Your task to perform on an android device: check out phone information Image 0: 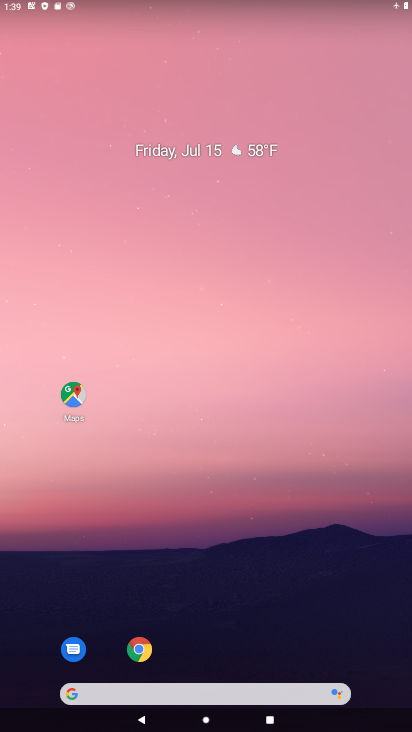
Step 0: drag from (79, 713) to (100, 214)
Your task to perform on an android device: check out phone information Image 1: 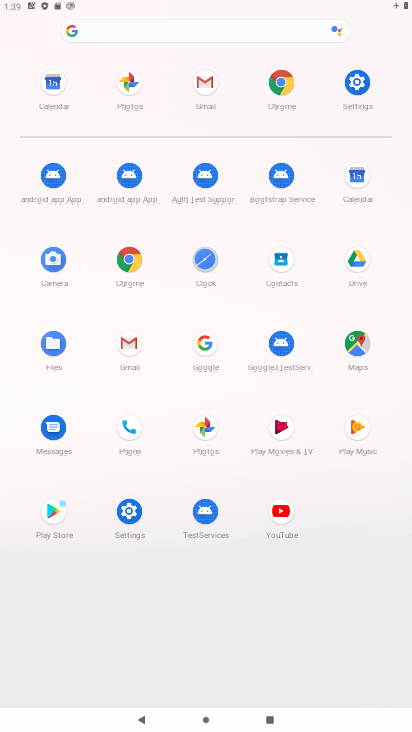
Step 1: click (358, 73)
Your task to perform on an android device: check out phone information Image 2: 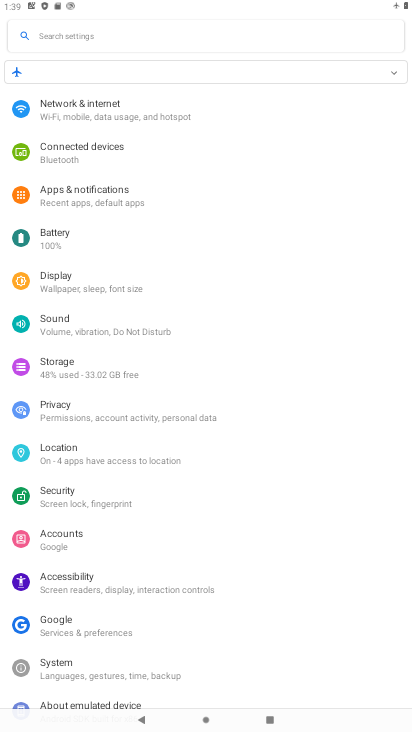
Step 2: drag from (208, 677) to (164, 22)
Your task to perform on an android device: check out phone information Image 3: 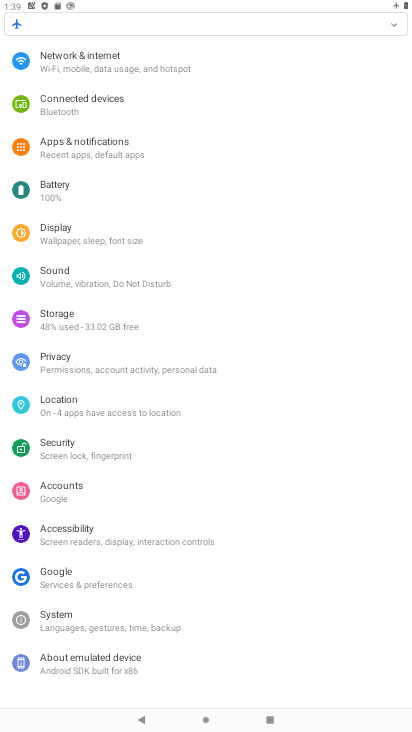
Step 3: click (174, 680)
Your task to perform on an android device: check out phone information Image 4: 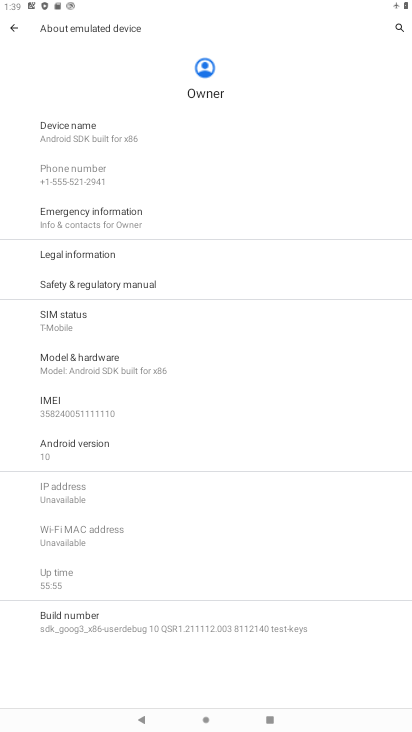
Step 4: task complete